Your task to perform on an android device: Go to network settings Image 0: 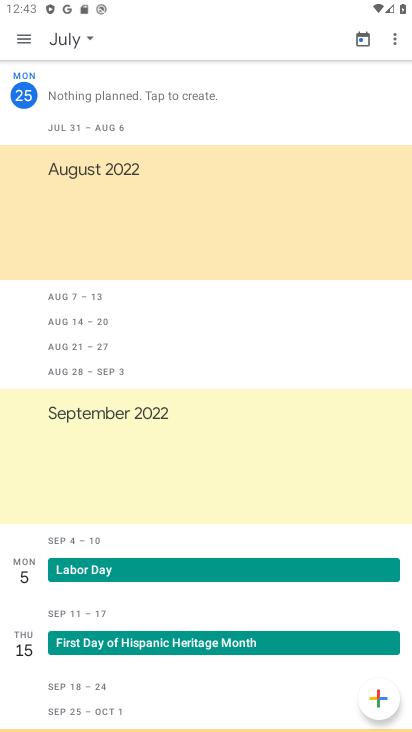
Step 0: press home button
Your task to perform on an android device: Go to network settings Image 1: 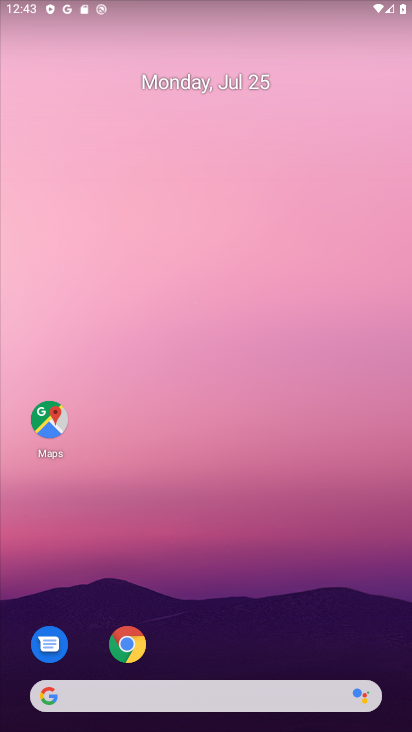
Step 1: drag from (226, 645) to (172, 15)
Your task to perform on an android device: Go to network settings Image 2: 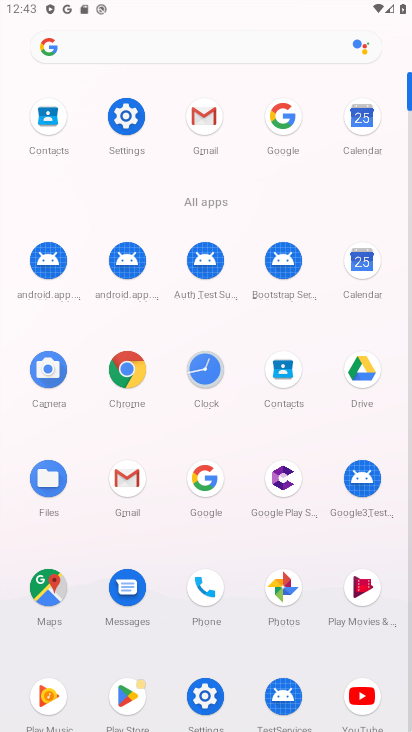
Step 2: click (134, 113)
Your task to perform on an android device: Go to network settings Image 3: 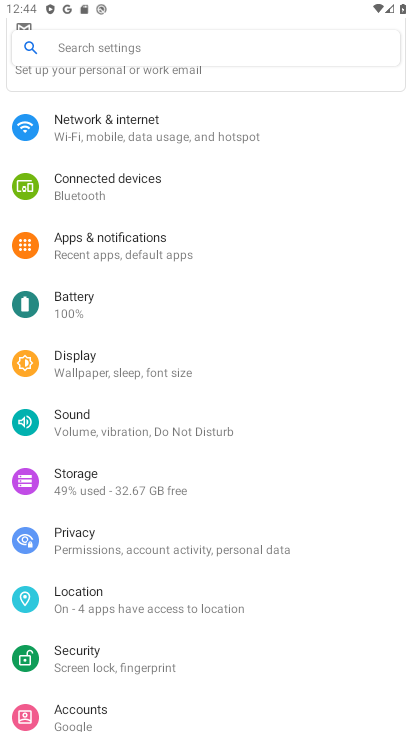
Step 3: click (136, 132)
Your task to perform on an android device: Go to network settings Image 4: 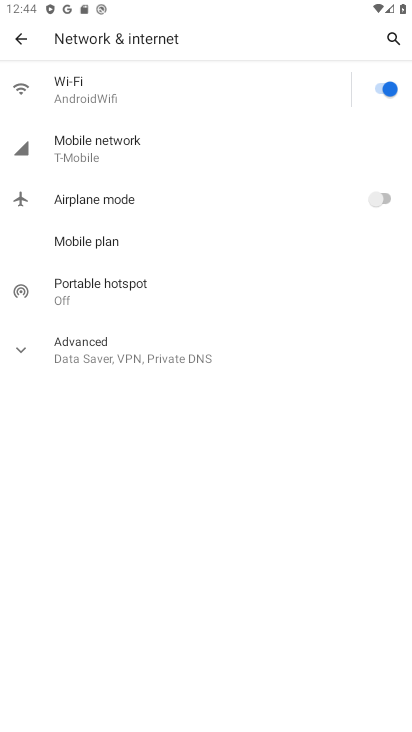
Step 4: click (117, 142)
Your task to perform on an android device: Go to network settings Image 5: 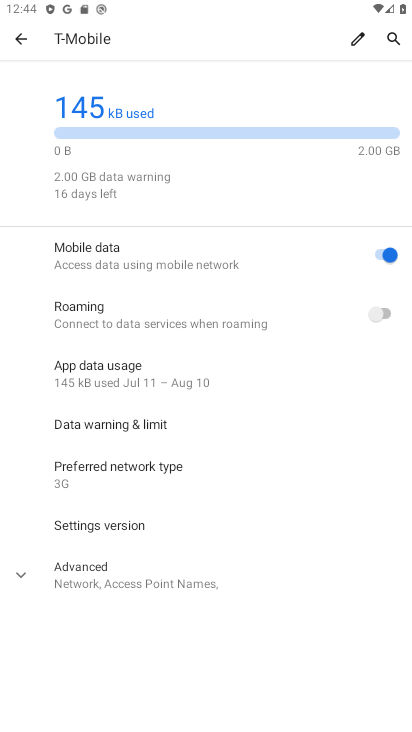
Step 5: task complete